Your task to perform on an android device: change the clock display to show seconds Image 0: 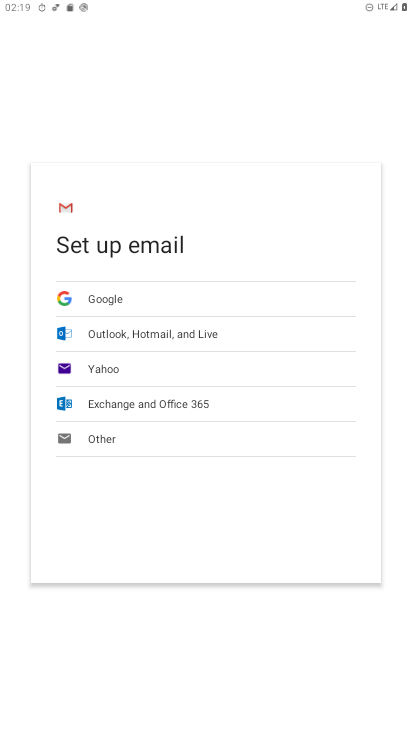
Step 0: press home button
Your task to perform on an android device: change the clock display to show seconds Image 1: 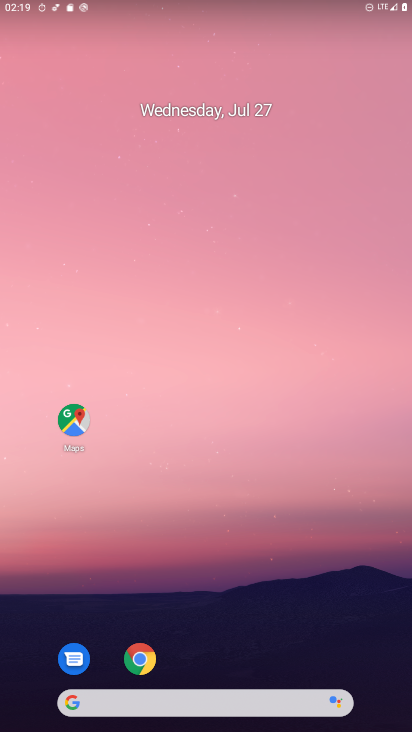
Step 1: drag from (295, 609) to (214, 134)
Your task to perform on an android device: change the clock display to show seconds Image 2: 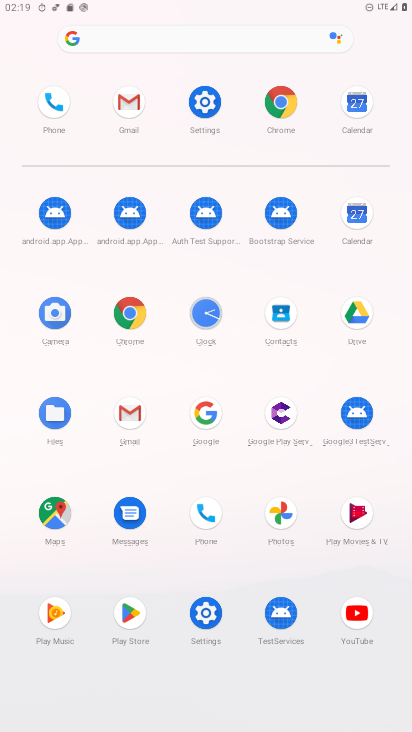
Step 2: click (205, 322)
Your task to perform on an android device: change the clock display to show seconds Image 3: 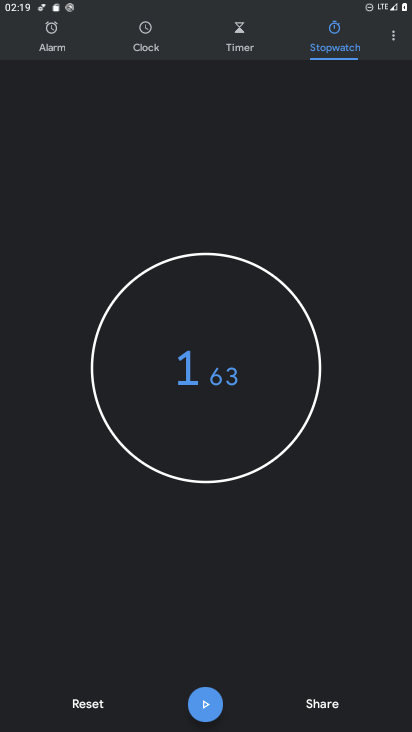
Step 3: click (396, 38)
Your task to perform on an android device: change the clock display to show seconds Image 4: 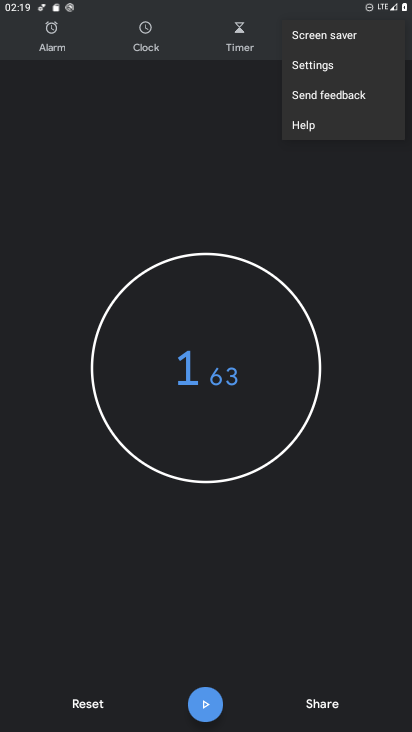
Step 4: click (315, 68)
Your task to perform on an android device: change the clock display to show seconds Image 5: 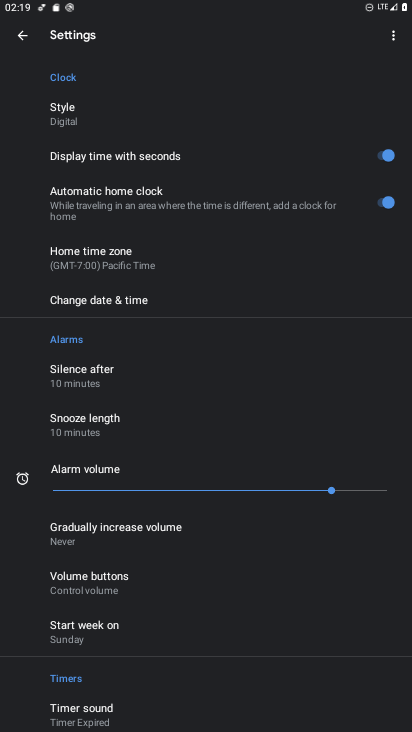
Step 5: task complete